Your task to perform on an android device: move a message to another label in the gmail app Image 0: 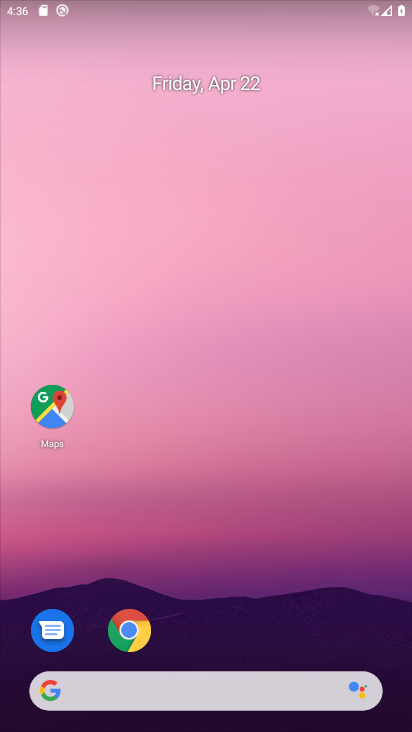
Step 0: drag from (281, 626) to (239, 135)
Your task to perform on an android device: move a message to another label in the gmail app Image 1: 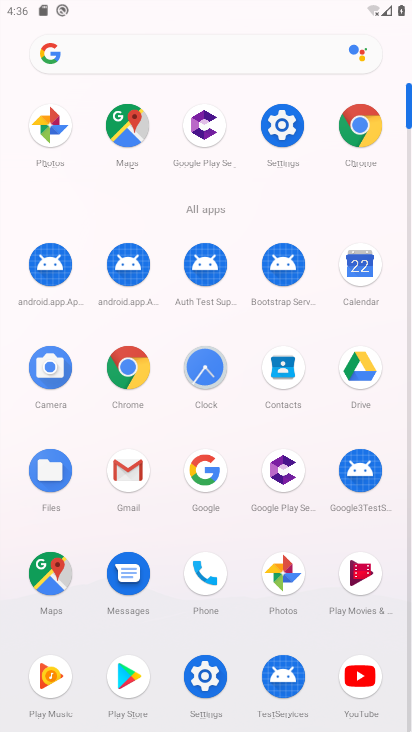
Step 1: click (126, 483)
Your task to perform on an android device: move a message to another label in the gmail app Image 2: 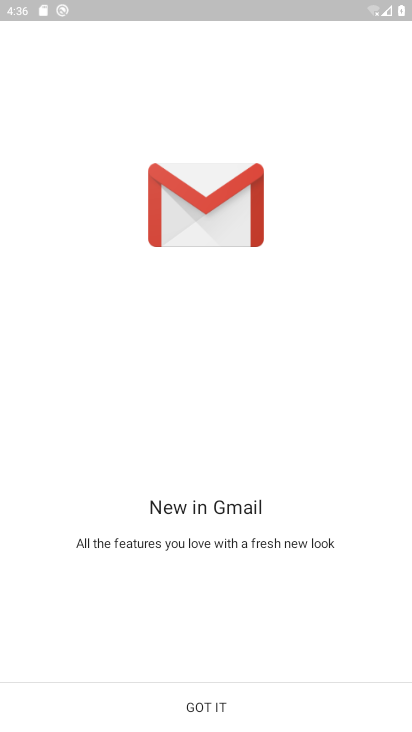
Step 2: click (216, 698)
Your task to perform on an android device: move a message to another label in the gmail app Image 3: 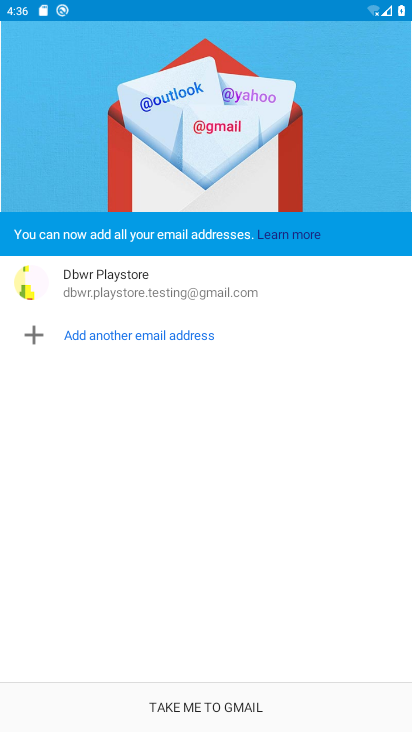
Step 3: click (234, 701)
Your task to perform on an android device: move a message to another label in the gmail app Image 4: 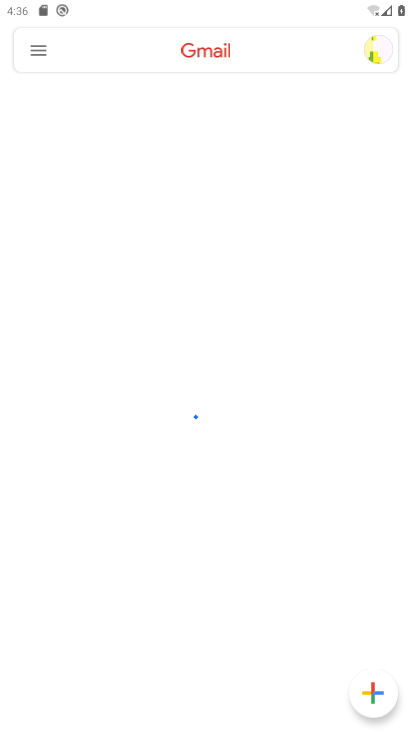
Step 4: click (27, 52)
Your task to perform on an android device: move a message to another label in the gmail app Image 5: 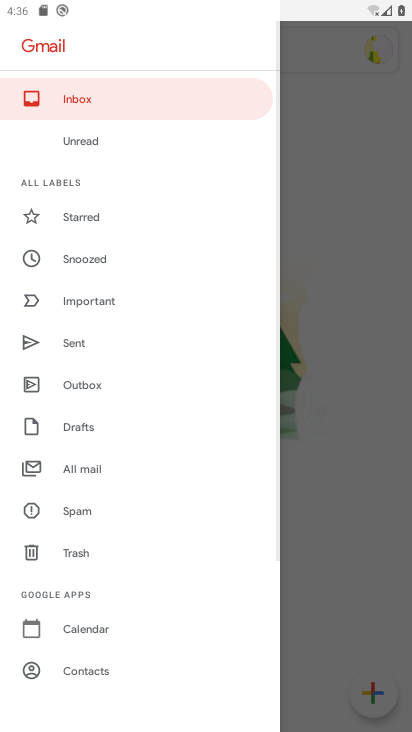
Step 5: click (87, 467)
Your task to perform on an android device: move a message to another label in the gmail app Image 6: 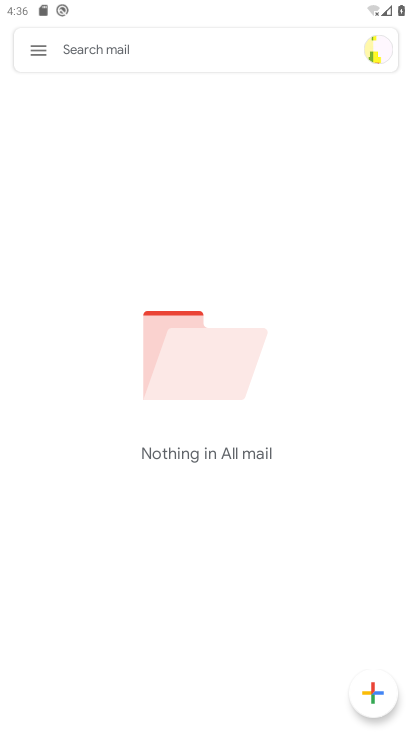
Step 6: task complete